Your task to perform on an android device: show emergency info Image 0: 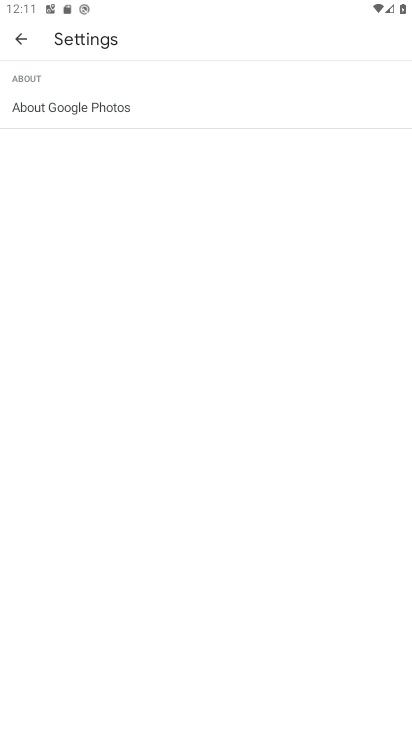
Step 0: press home button
Your task to perform on an android device: show emergency info Image 1: 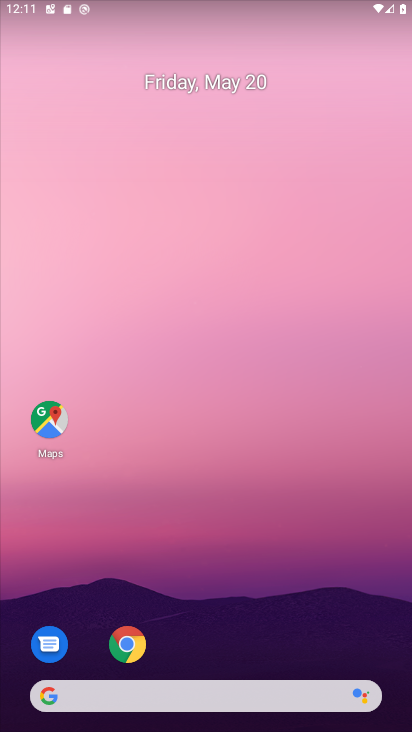
Step 1: drag from (265, 662) to (305, 352)
Your task to perform on an android device: show emergency info Image 2: 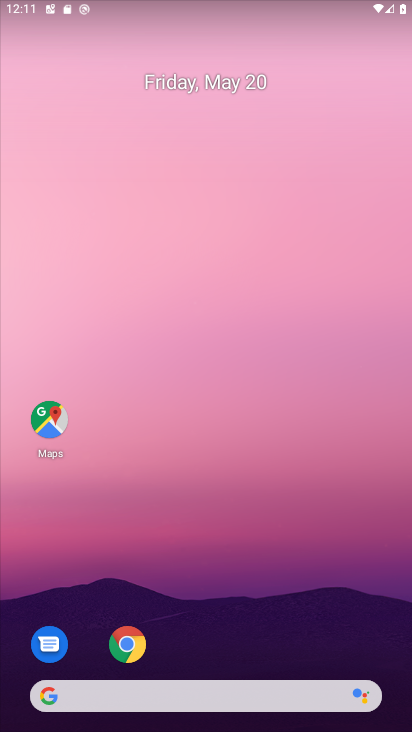
Step 2: drag from (239, 673) to (252, 323)
Your task to perform on an android device: show emergency info Image 3: 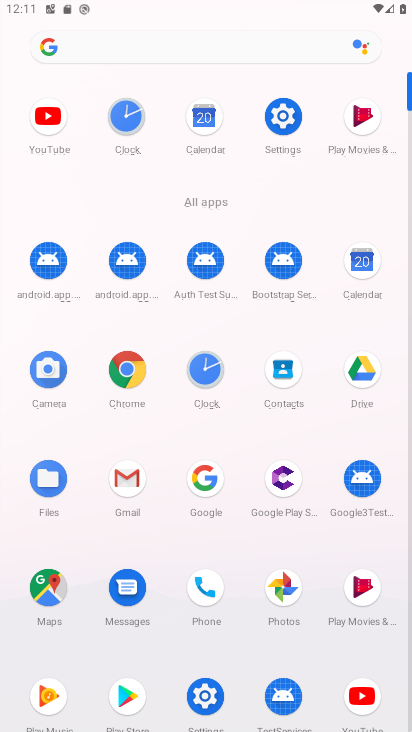
Step 3: click (292, 114)
Your task to perform on an android device: show emergency info Image 4: 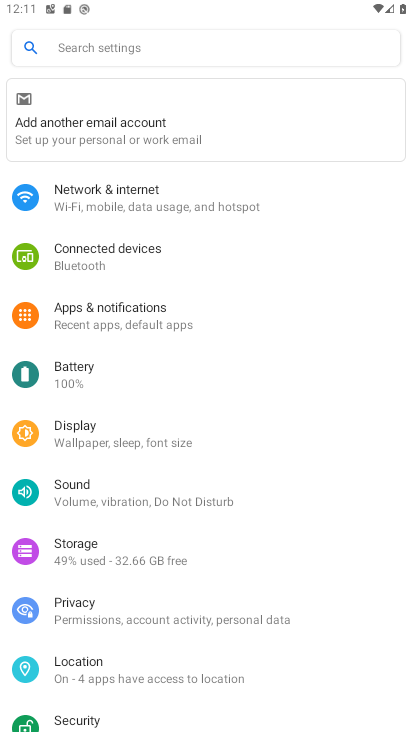
Step 4: drag from (179, 693) to (264, 343)
Your task to perform on an android device: show emergency info Image 5: 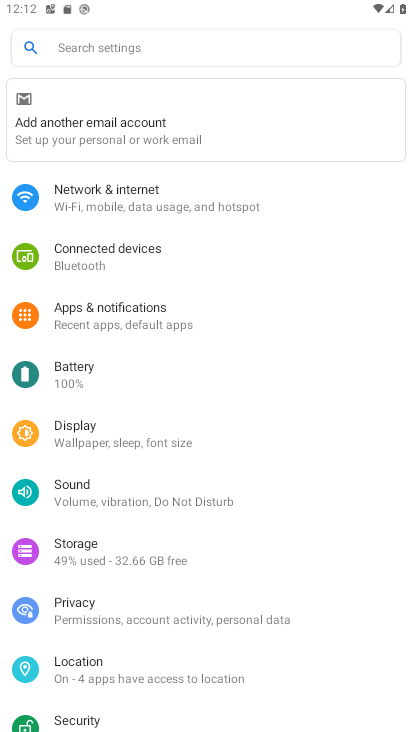
Step 5: drag from (147, 717) to (188, 223)
Your task to perform on an android device: show emergency info Image 6: 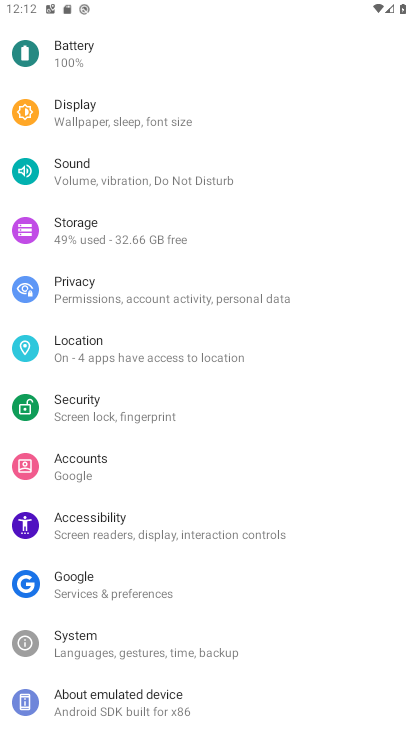
Step 6: click (153, 699)
Your task to perform on an android device: show emergency info Image 7: 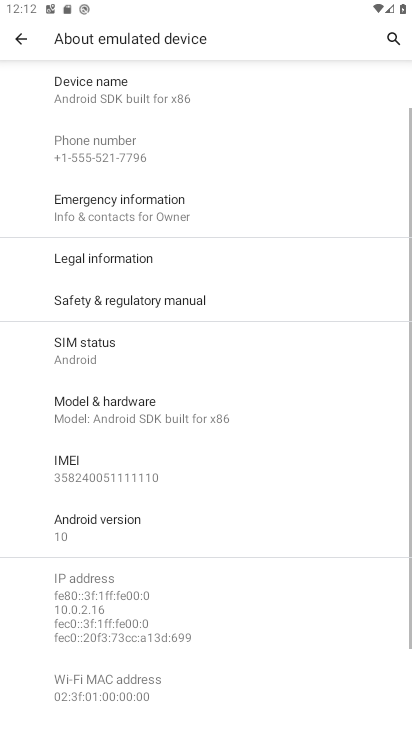
Step 7: click (96, 222)
Your task to perform on an android device: show emergency info Image 8: 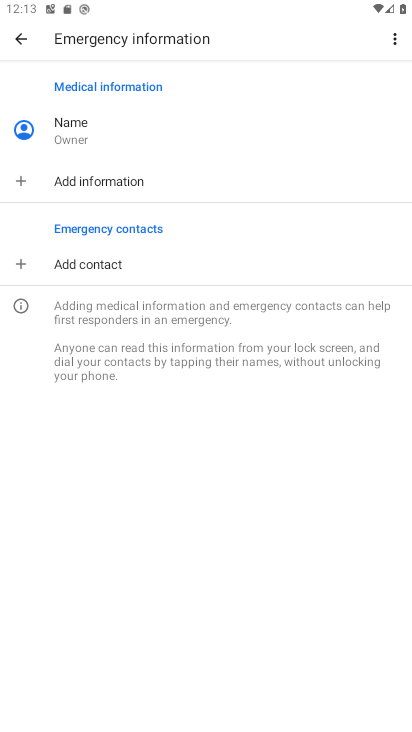
Step 8: task complete